Your task to perform on an android device: What's the weather today? Image 0: 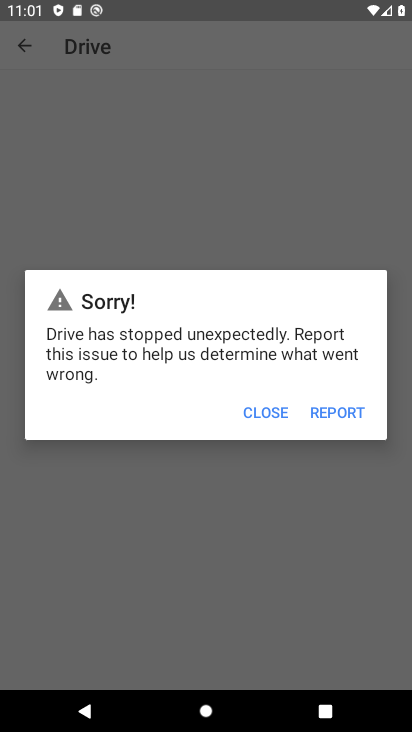
Step 0: press home button
Your task to perform on an android device: What's the weather today? Image 1: 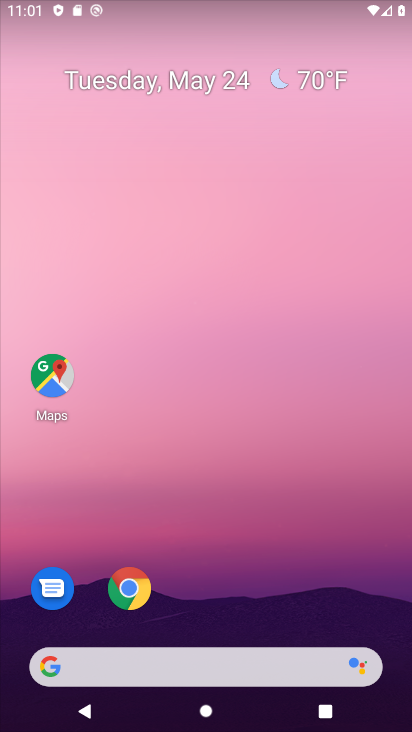
Step 1: drag from (7, 268) to (411, 271)
Your task to perform on an android device: What's the weather today? Image 2: 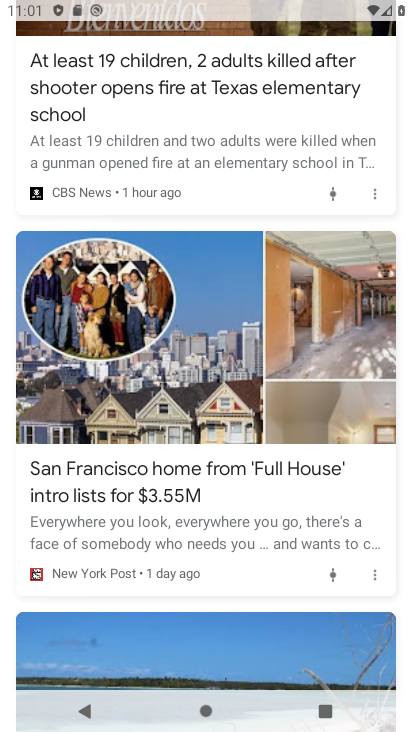
Step 2: drag from (226, 111) to (243, 678)
Your task to perform on an android device: What's the weather today? Image 3: 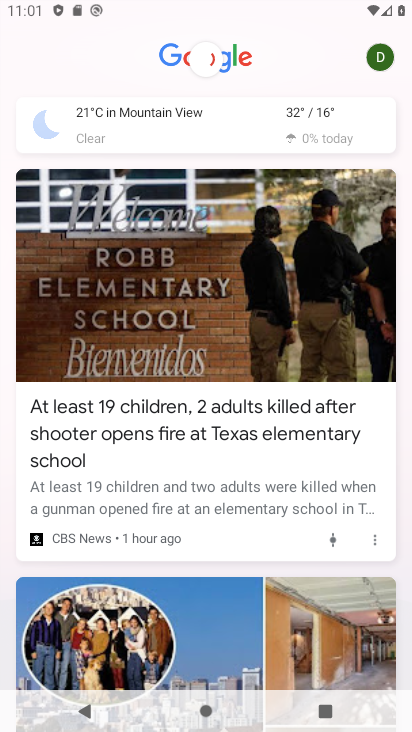
Step 3: click (315, 111)
Your task to perform on an android device: What's the weather today? Image 4: 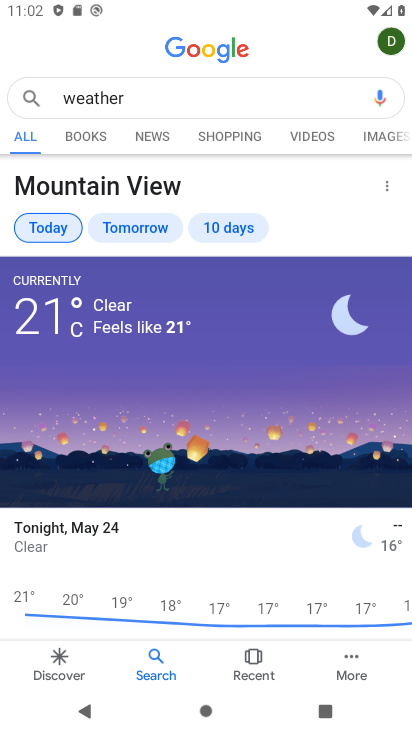
Step 4: task complete